Your task to perform on an android device: change text size in settings app Image 0: 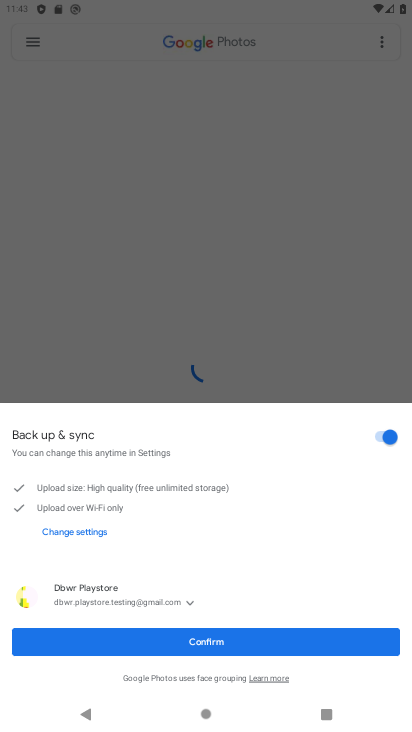
Step 0: press home button
Your task to perform on an android device: change text size in settings app Image 1: 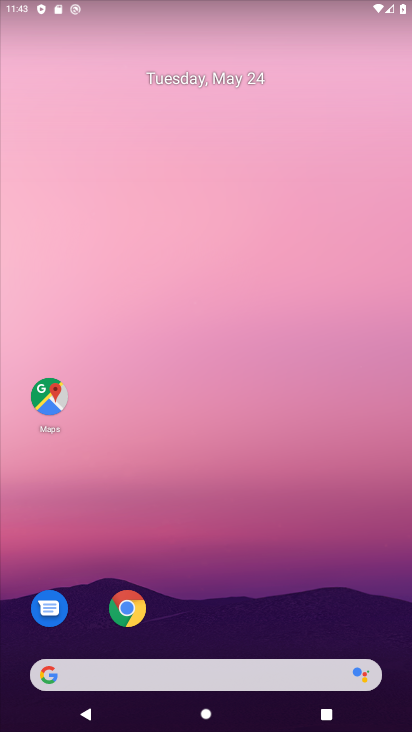
Step 1: drag from (207, 660) to (318, 77)
Your task to perform on an android device: change text size in settings app Image 2: 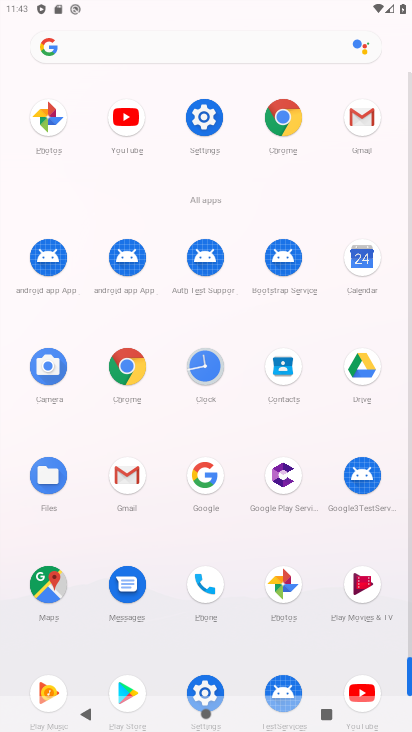
Step 2: drag from (196, 638) to (259, 287)
Your task to perform on an android device: change text size in settings app Image 3: 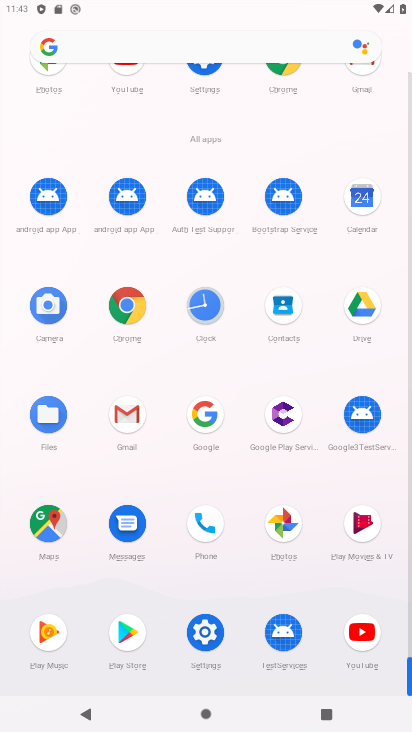
Step 3: click (197, 629)
Your task to perform on an android device: change text size in settings app Image 4: 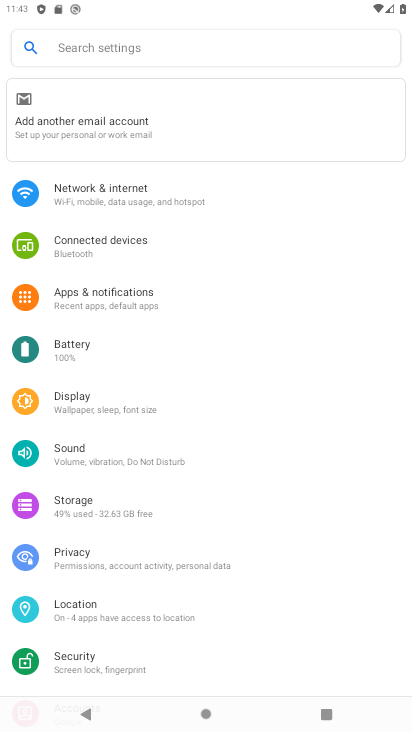
Step 4: click (119, 404)
Your task to perform on an android device: change text size in settings app Image 5: 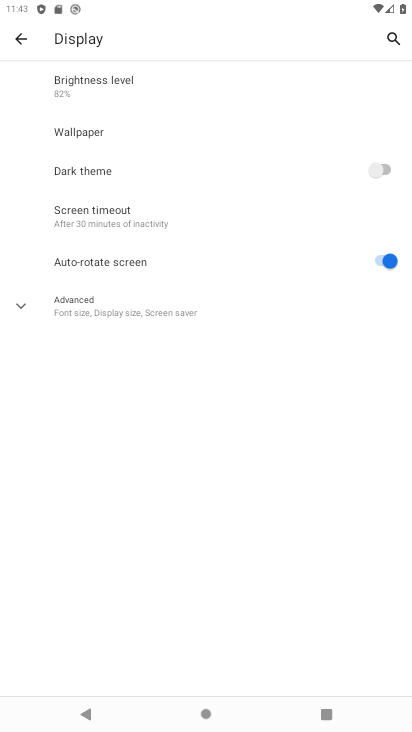
Step 5: click (141, 311)
Your task to perform on an android device: change text size in settings app Image 6: 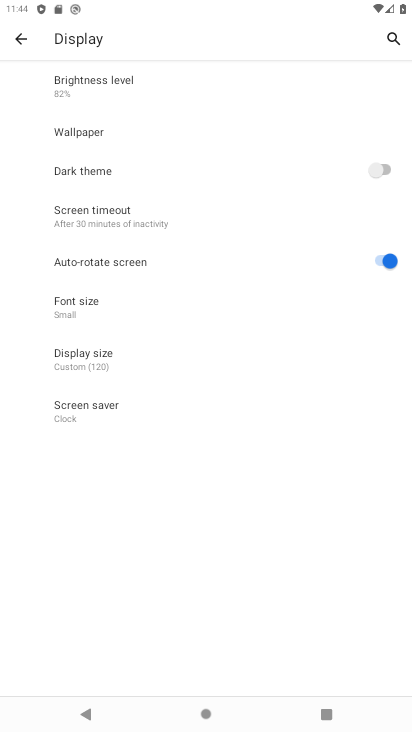
Step 6: click (134, 315)
Your task to perform on an android device: change text size in settings app Image 7: 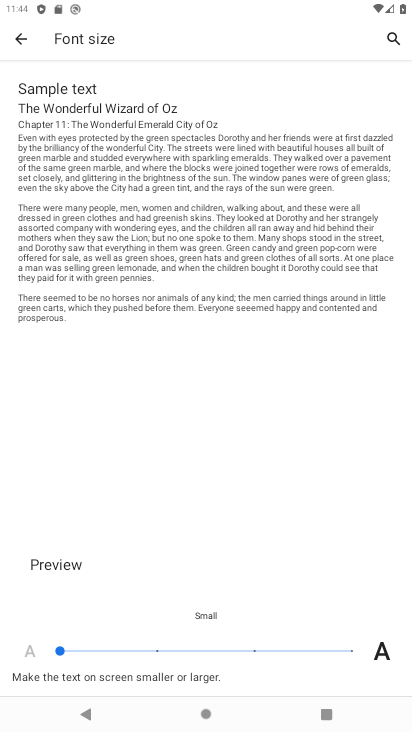
Step 7: click (158, 658)
Your task to perform on an android device: change text size in settings app Image 8: 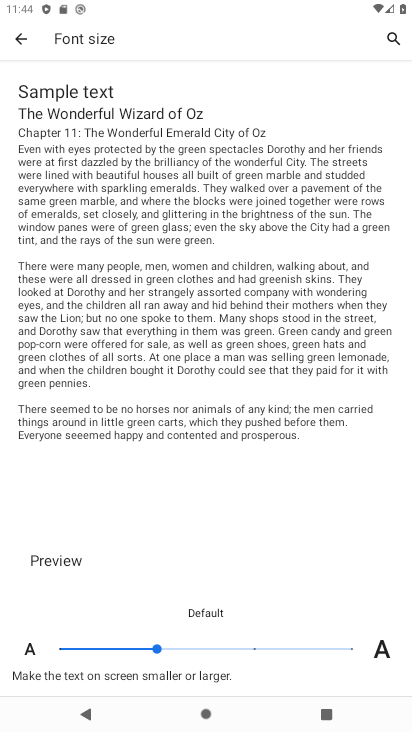
Step 8: click (247, 651)
Your task to perform on an android device: change text size in settings app Image 9: 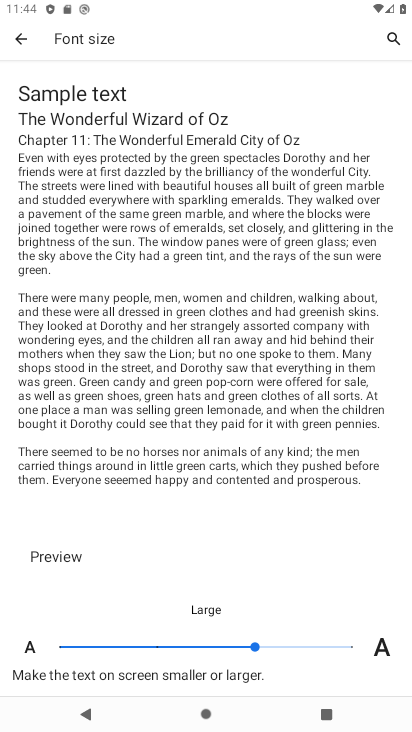
Step 9: task complete